Your task to perform on an android device: Open battery settings Image 0: 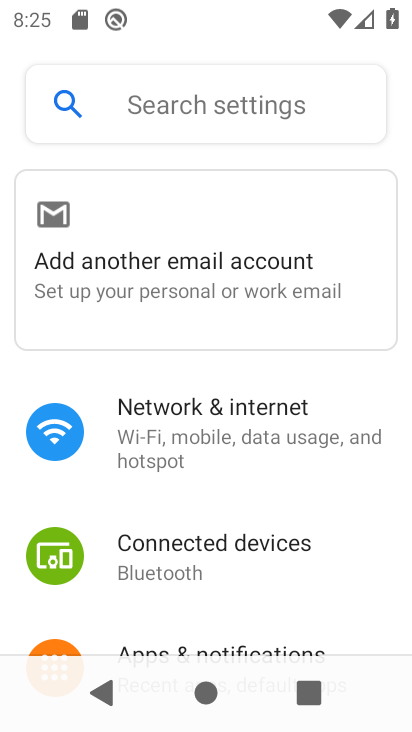
Step 0: press home button
Your task to perform on an android device: Open battery settings Image 1: 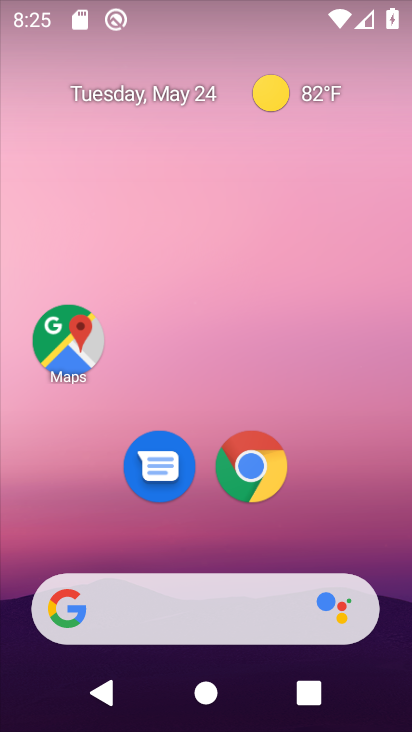
Step 1: drag from (182, 498) to (203, 155)
Your task to perform on an android device: Open battery settings Image 2: 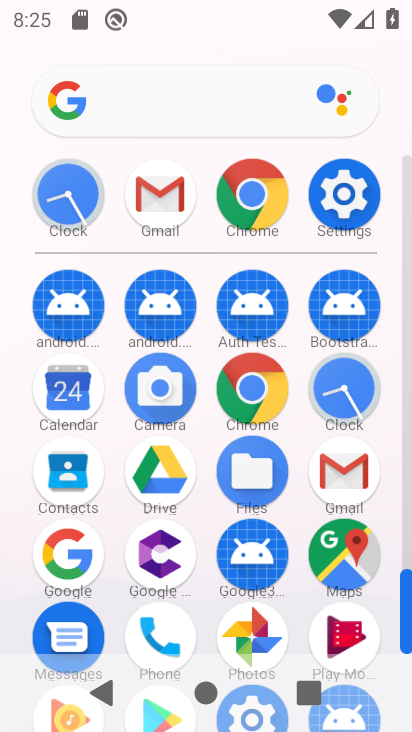
Step 2: click (343, 200)
Your task to perform on an android device: Open battery settings Image 3: 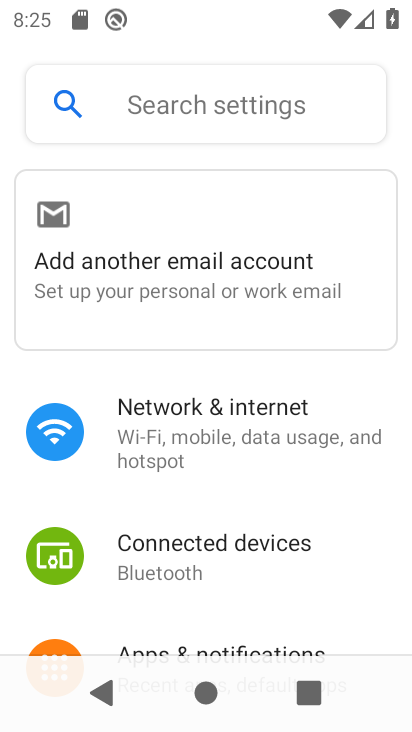
Step 3: drag from (178, 622) to (204, 177)
Your task to perform on an android device: Open battery settings Image 4: 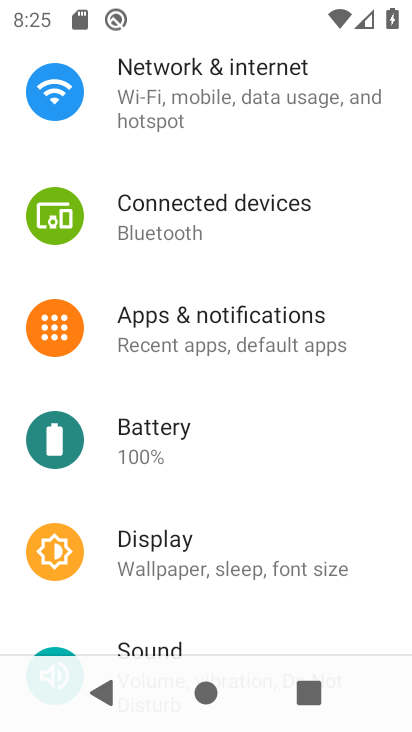
Step 4: click (188, 438)
Your task to perform on an android device: Open battery settings Image 5: 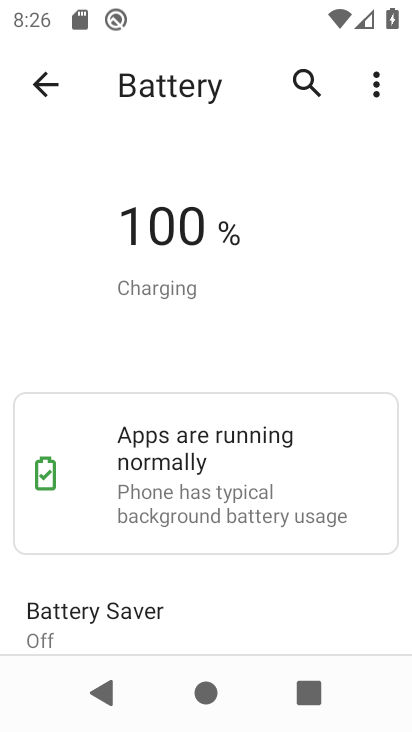
Step 5: click (256, 295)
Your task to perform on an android device: Open battery settings Image 6: 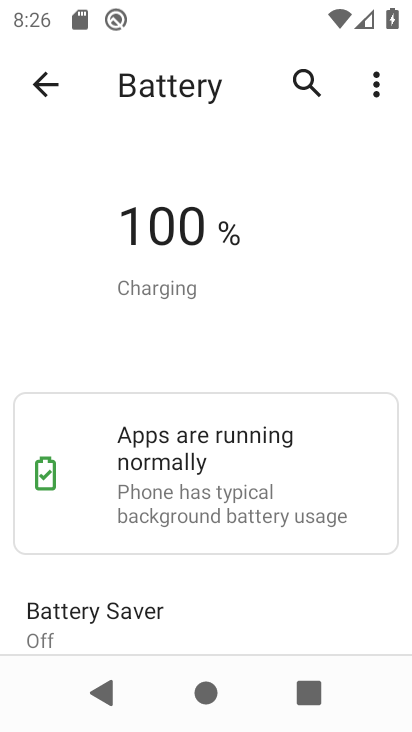
Step 6: task complete